Your task to perform on an android device: What's on the menu at McDonalds? Image 0: 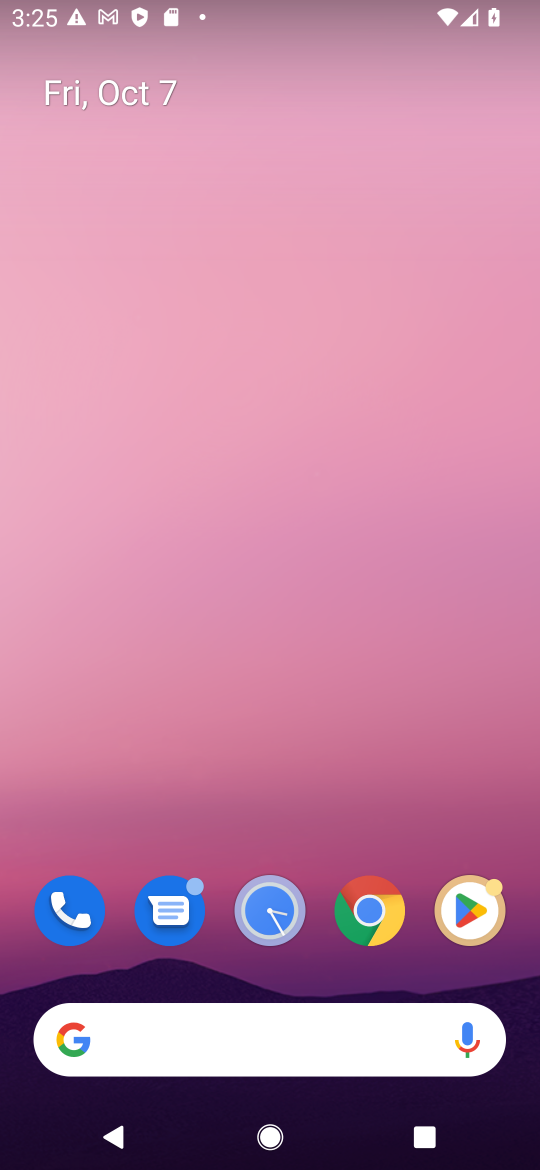
Step 0: drag from (229, 972) to (314, 42)
Your task to perform on an android device: What's on the menu at McDonalds? Image 1: 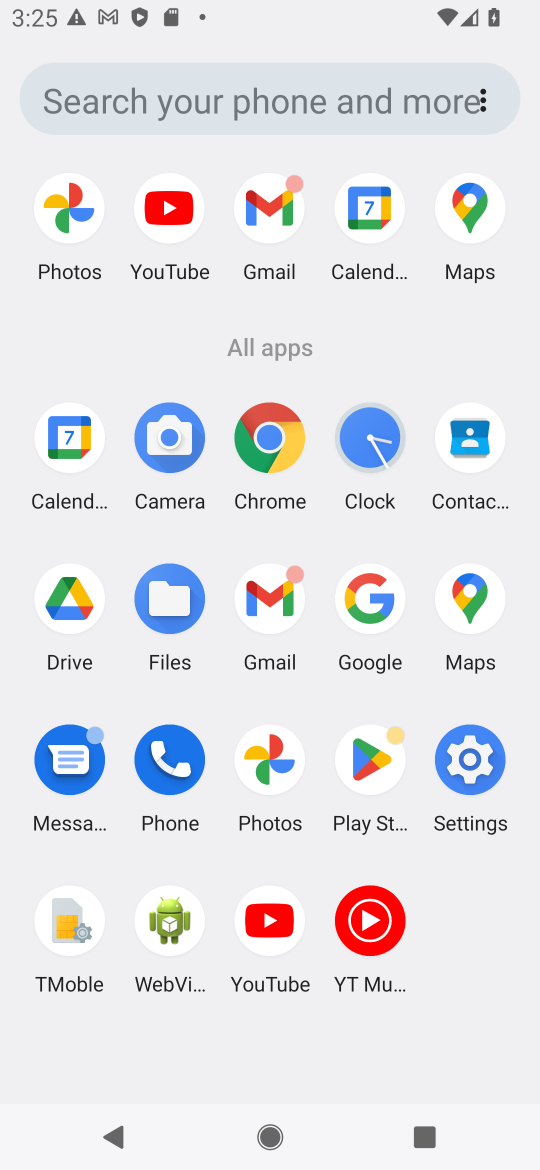
Step 1: click (369, 603)
Your task to perform on an android device: What's on the menu at McDonalds? Image 2: 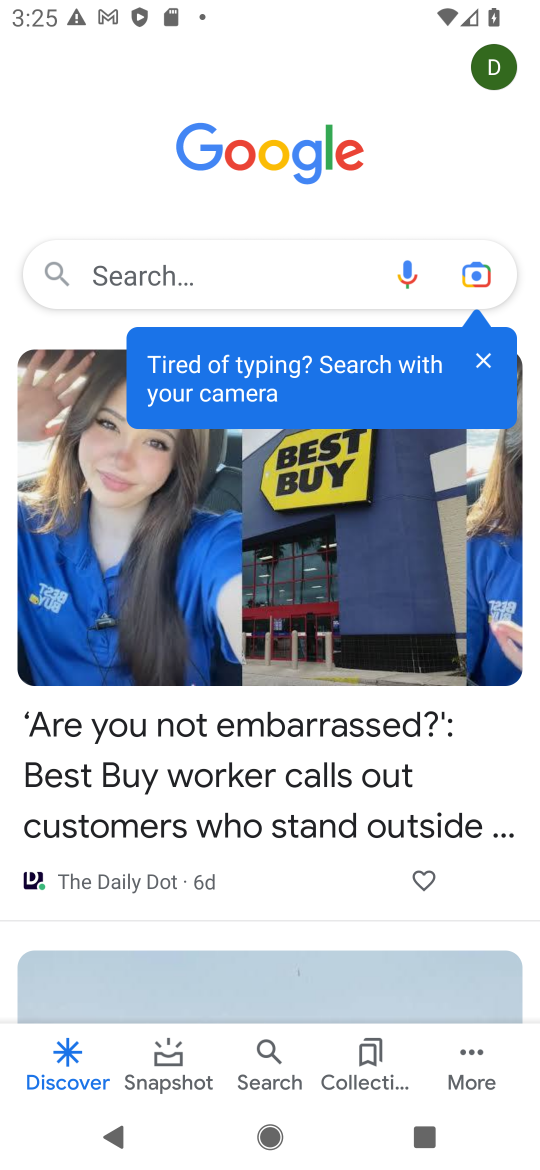
Step 2: click (161, 285)
Your task to perform on an android device: What's on the menu at McDonalds? Image 3: 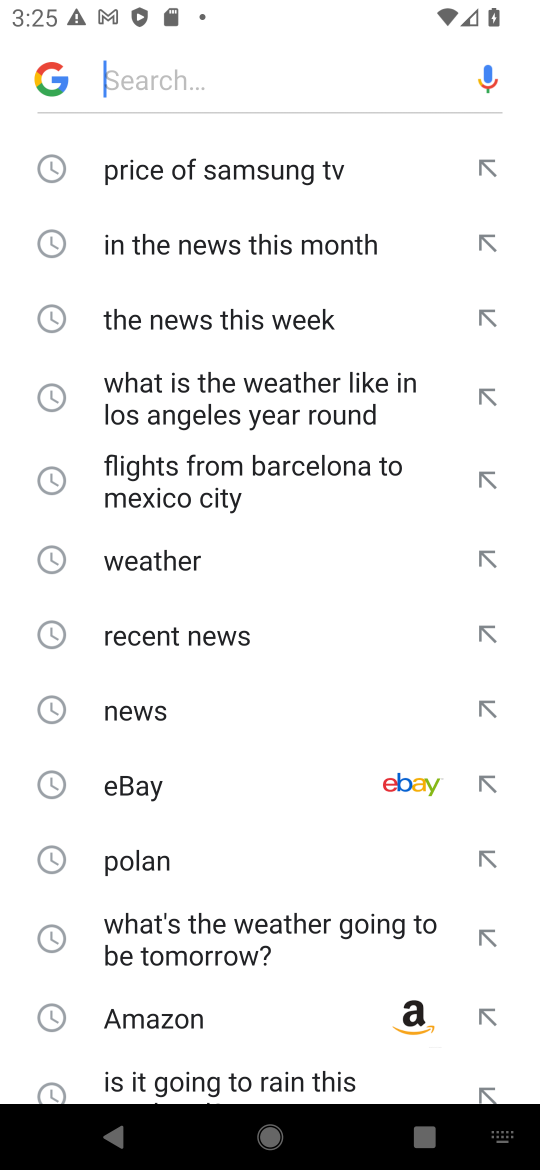
Step 3: type " menu at McDonalds"
Your task to perform on an android device: What's on the menu at McDonalds? Image 4: 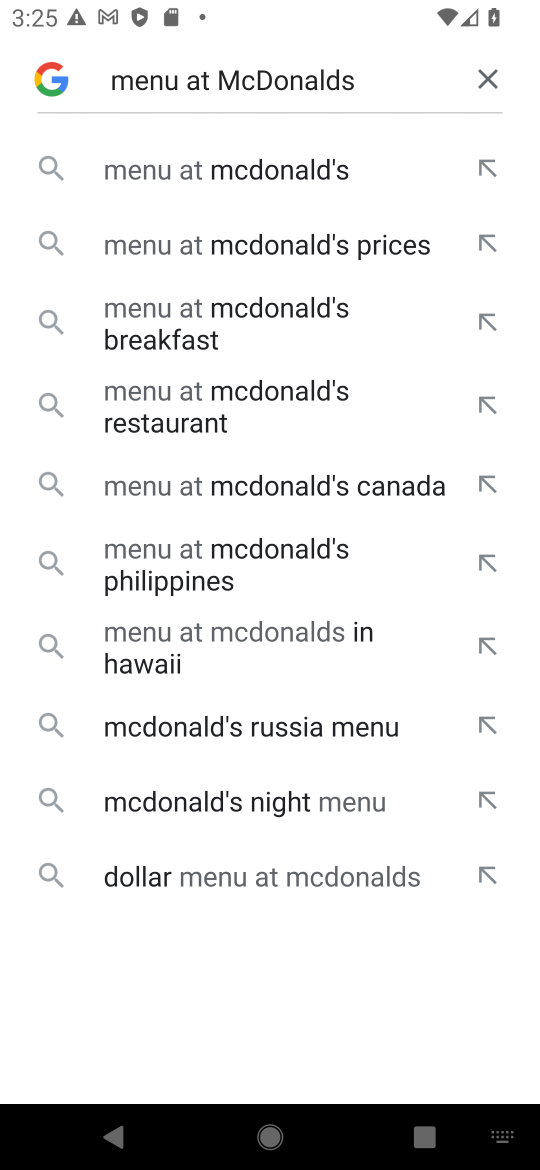
Step 4: click (279, 170)
Your task to perform on an android device: What's on the menu at McDonalds? Image 5: 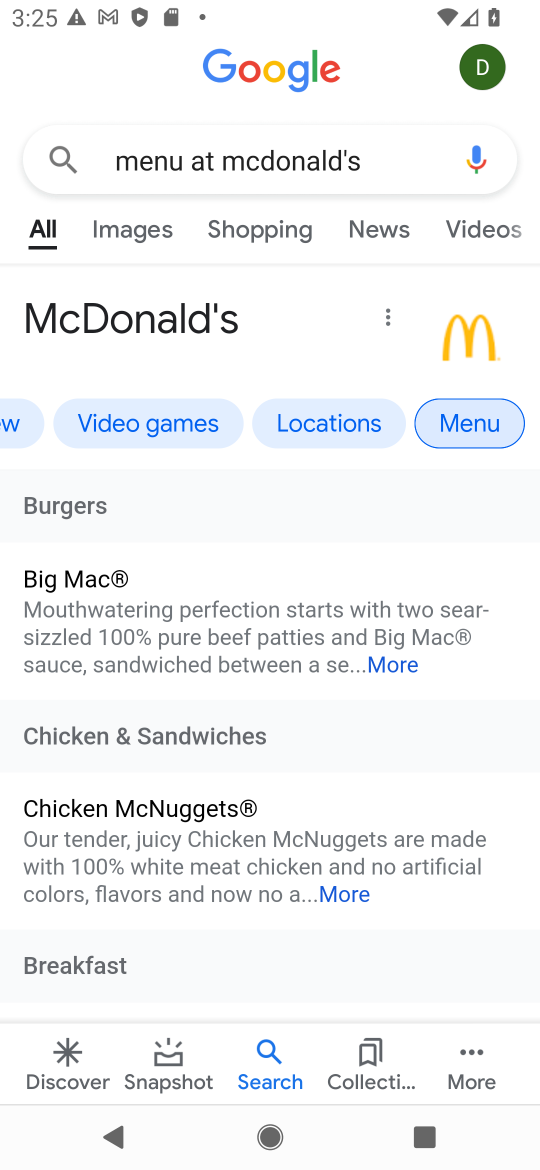
Step 5: click (468, 407)
Your task to perform on an android device: What's on the menu at McDonalds? Image 6: 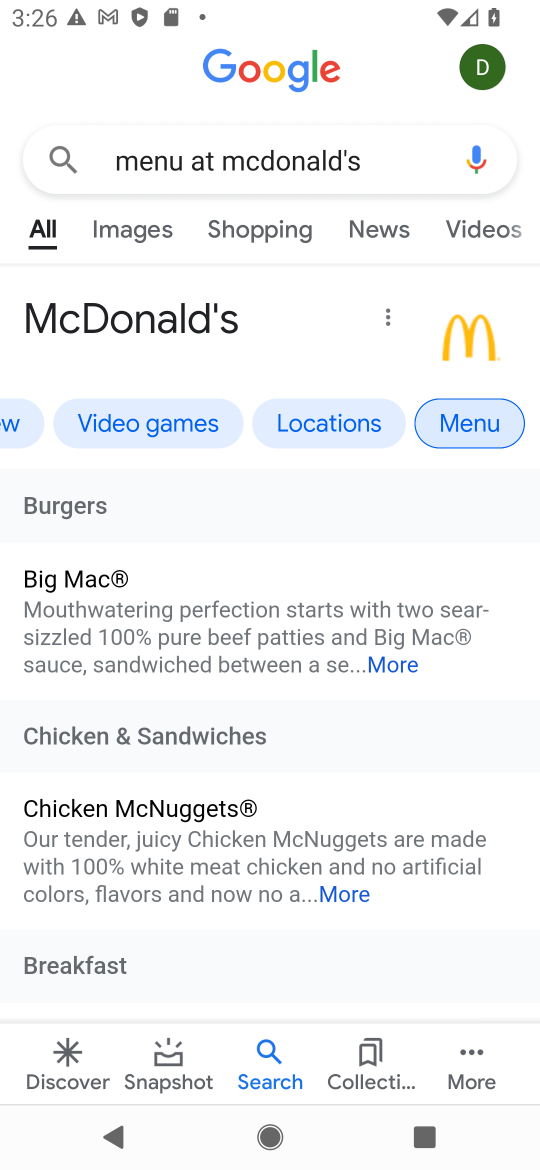
Step 6: drag from (236, 981) to (288, 553)
Your task to perform on an android device: What's on the menu at McDonalds? Image 7: 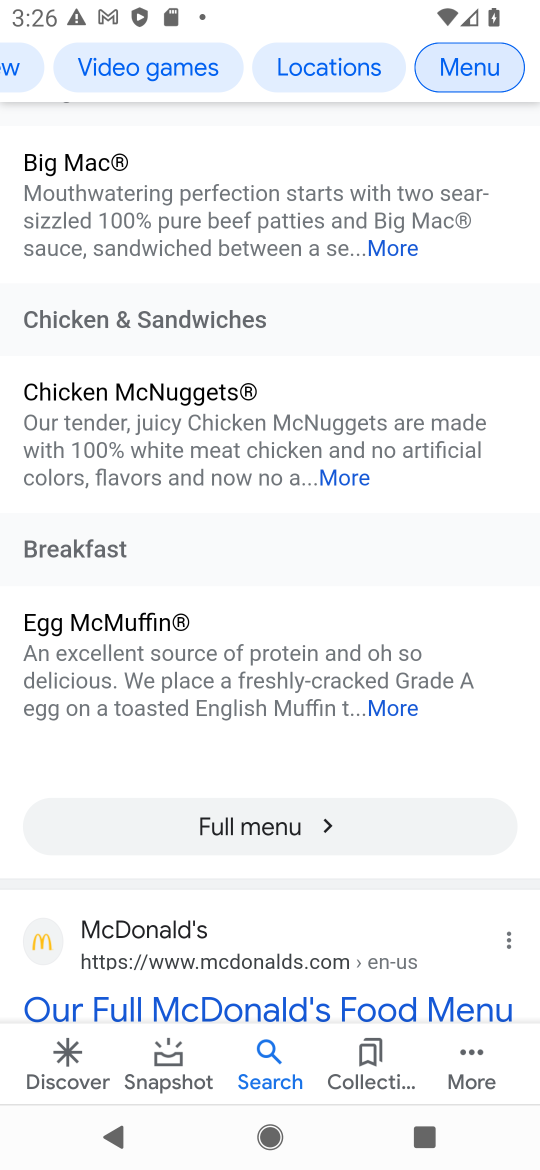
Step 7: drag from (232, 871) to (261, 431)
Your task to perform on an android device: What's on the menu at McDonalds? Image 8: 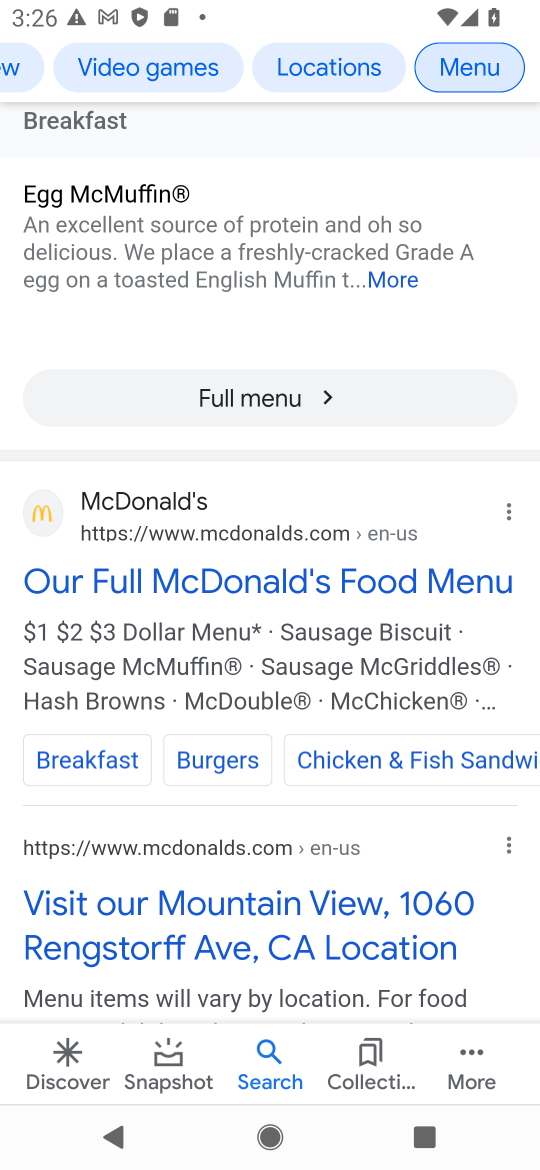
Step 8: drag from (237, 787) to (297, 380)
Your task to perform on an android device: What's on the menu at McDonalds? Image 9: 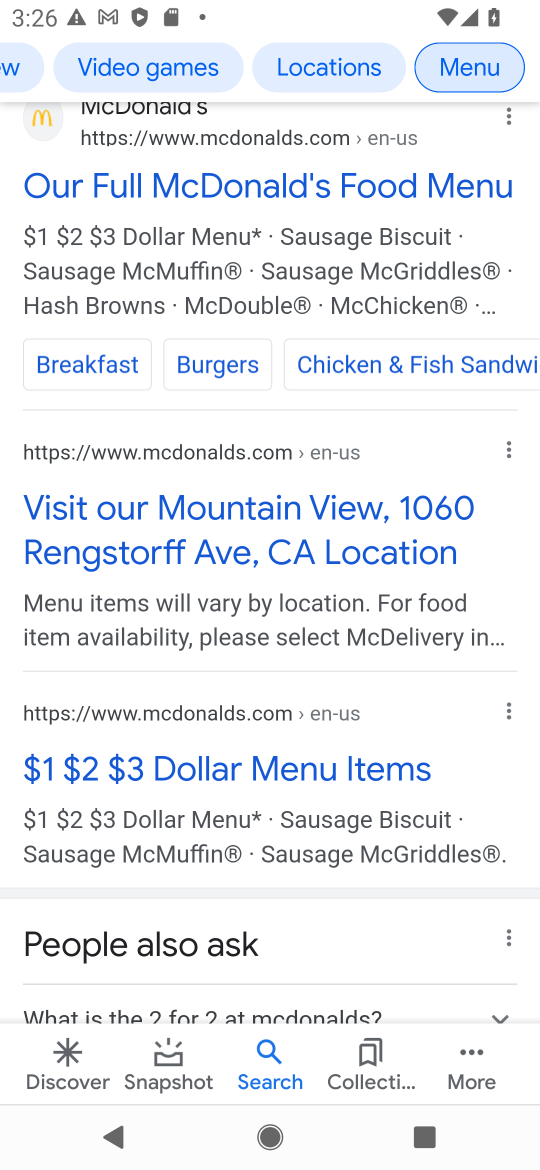
Step 9: drag from (268, 607) to (281, 422)
Your task to perform on an android device: What's on the menu at McDonalds? Image 10: 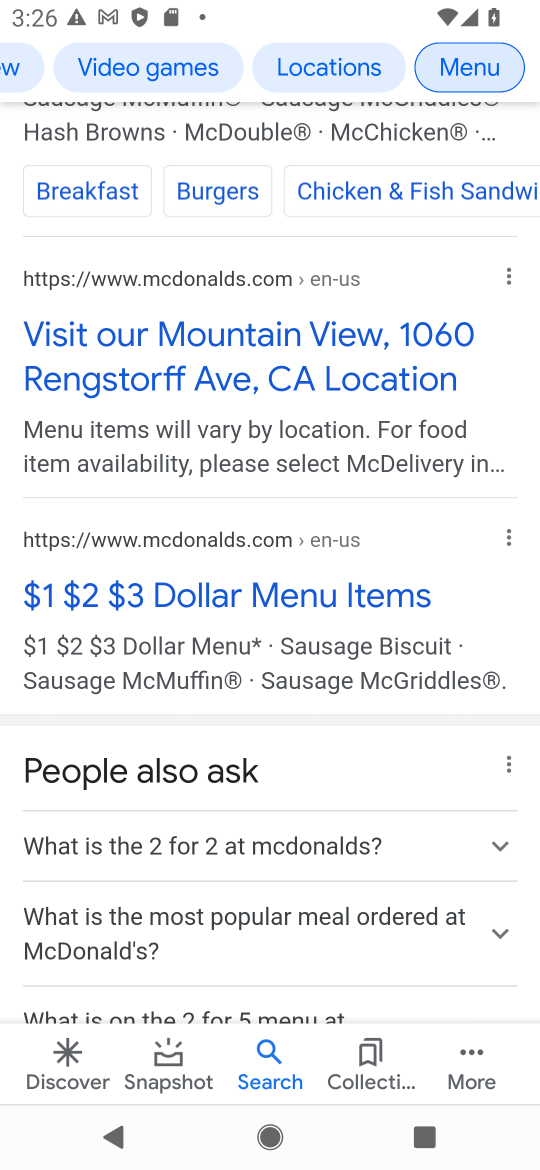
Step 10: drag from (228, 634) to (270, 327)
Your task to perform on an android device: What's on the menu at McDonalds? Image 11: 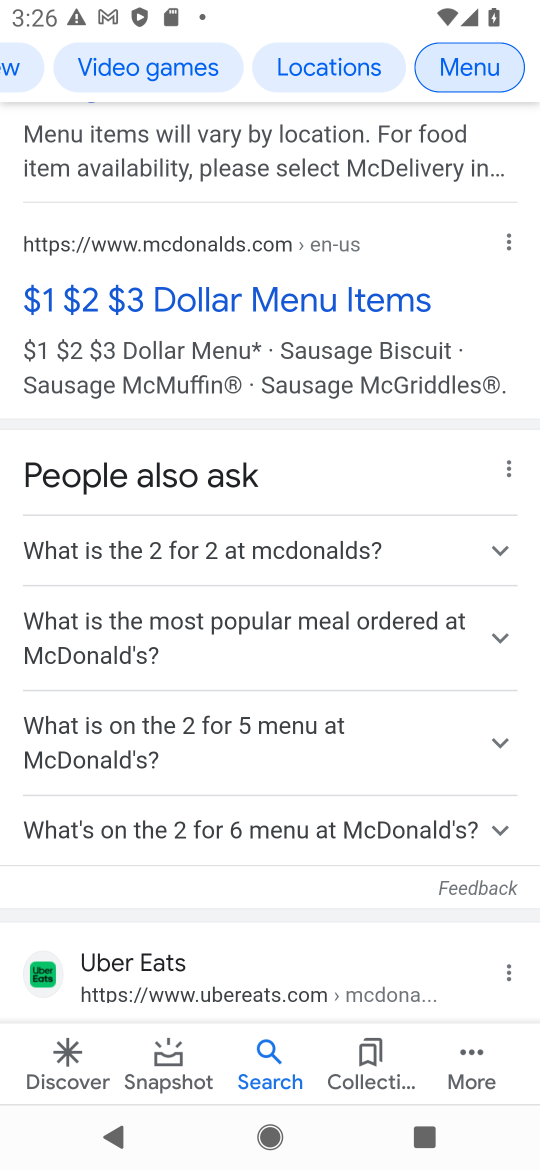
Step 11: drag from (267, 836) to (331, 552)
Your task to perform on an android device: What's on the menu at McDonalds? Image 12: 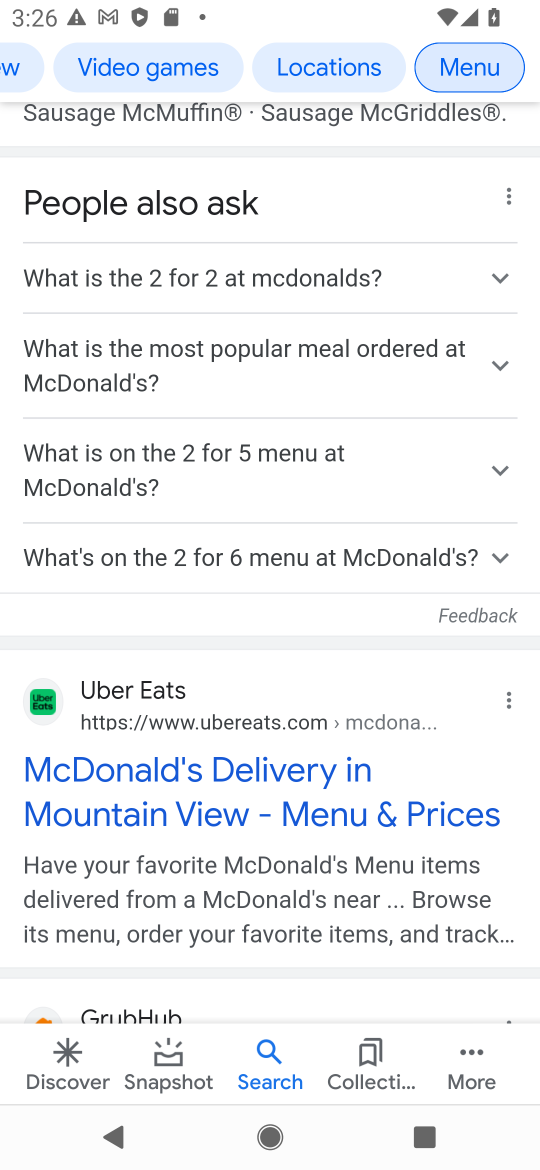
Step 12: click (174, 803)
Your task to perform on an android device: What's on the menu at McDonalds? Image 13: 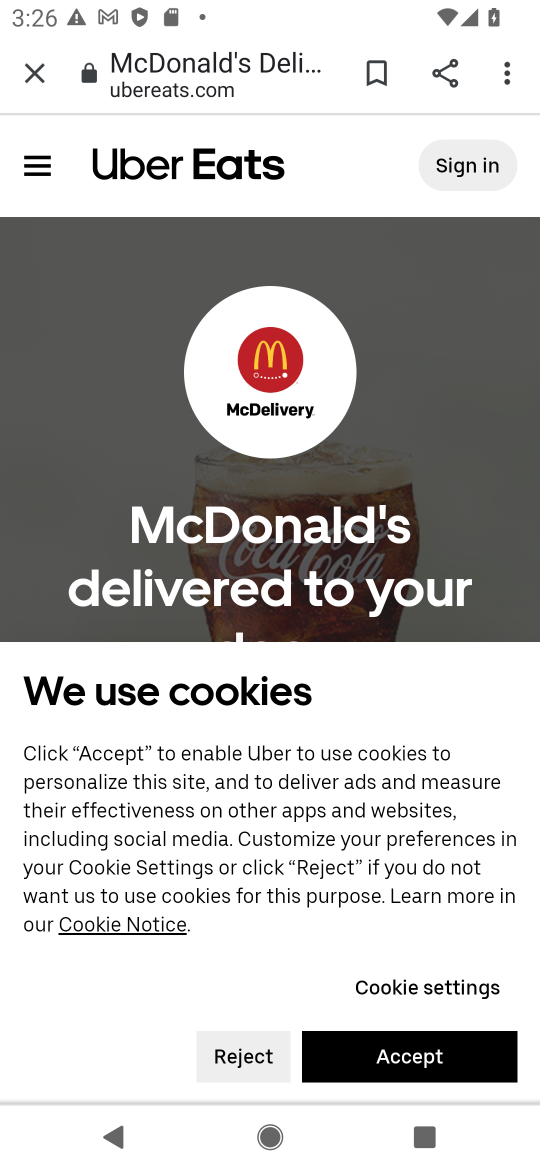
Step 13: click (399, 1055)
Your task to perform on an android device: What's on the menu at McDonalds? Image 14: 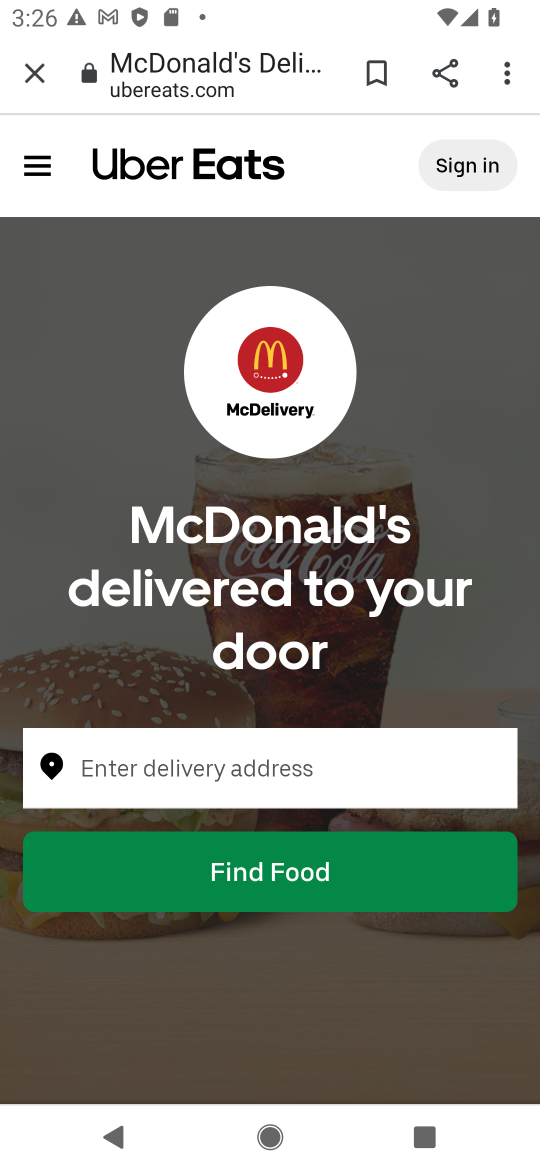
Step 14: task complete